Your task to perform on an android device: Go to settings Image 0: 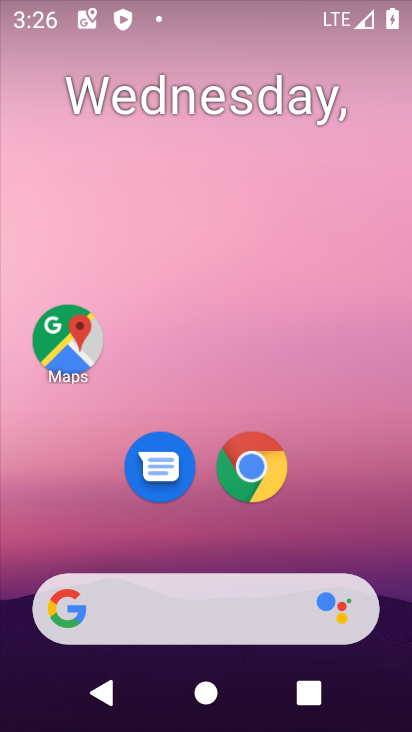
Step 0: drag from (391, 567) to (357, 173)
Your task to perform on an android device: Go to settings Image 1: 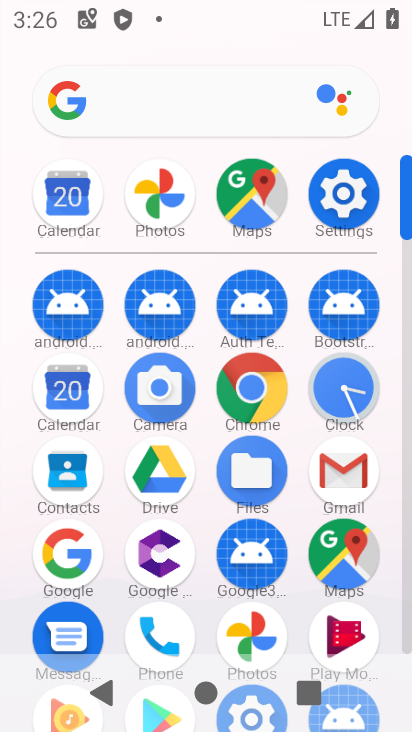
Step 1: click (408, 624)
Your task to perform on an android device: Go to settings Image 2: 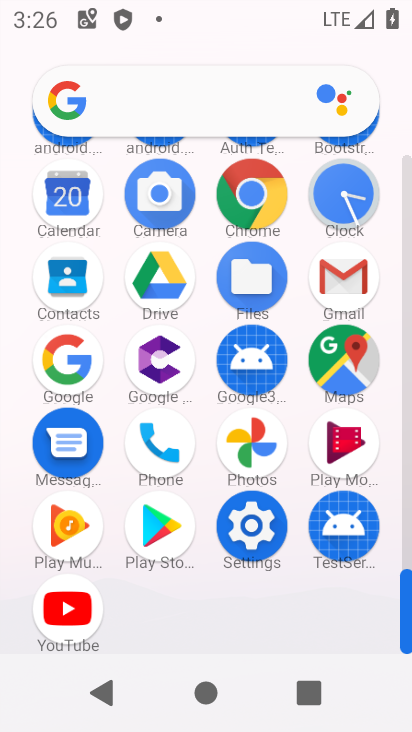
Step 2: click (250, 527)
Your task to perform on an android device: Go to settings Image 3: 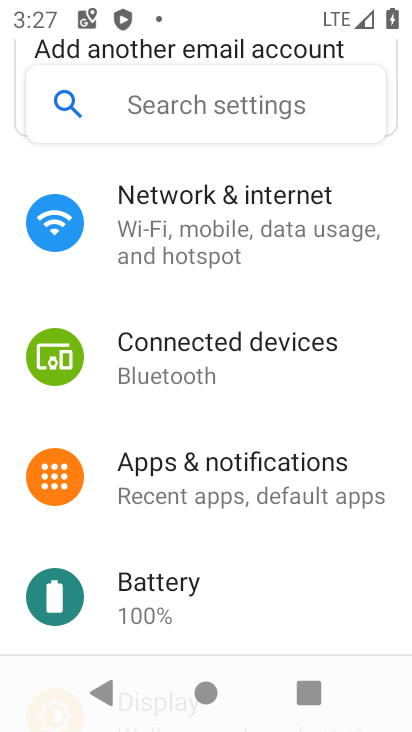
Step 3: task complete